Your task to perform on an android device: move a message to another label in the gmail app Image 0: 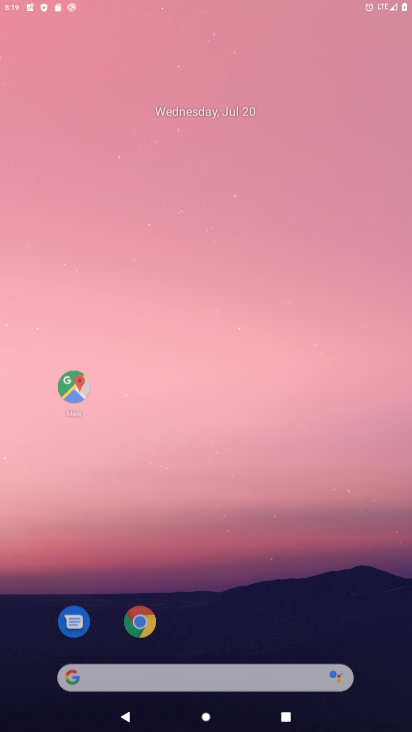
Step 0: click (132, 630)
Your task to perform on an android device: move a message to another label in the gmail app Image 1: 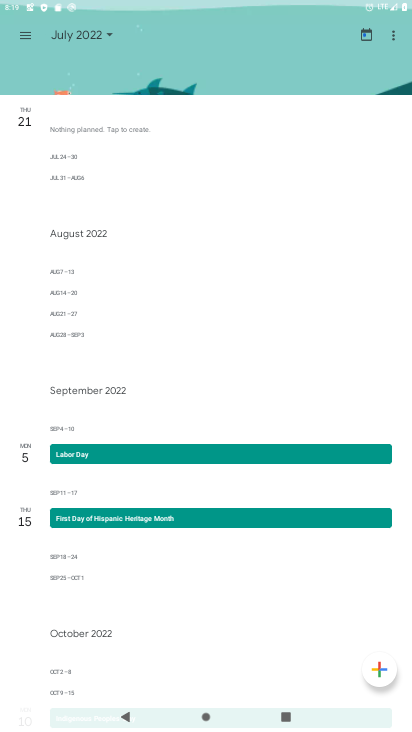
Step 1: press home button
Your task to perform on an android device: move a message to another label in the gmail app Image 2: 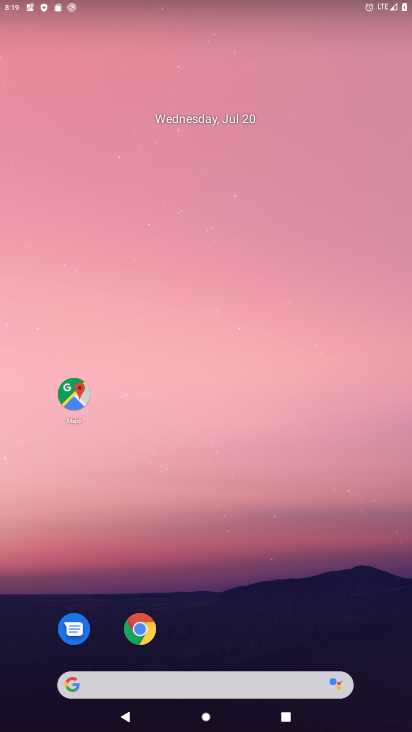
Step 2: drag from (142, 64) to (159, 14)
Your task to perform on an android device: move a message to another label in the gmail app Image 3: 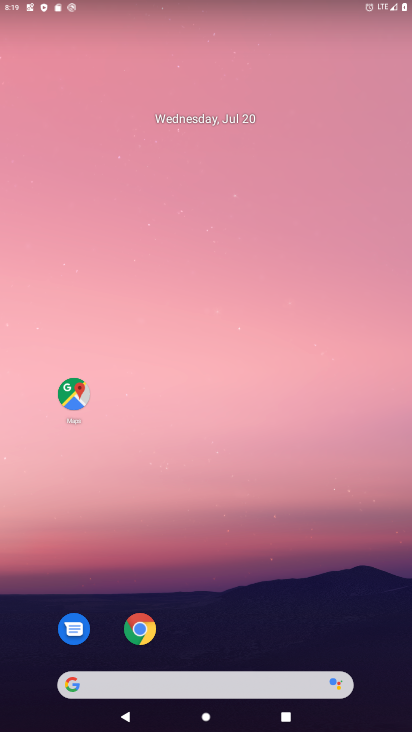
Step 3: drag from (199, 596) to (204, 78)
Your task to perform on an android device: move a message to another label in the gmail app Image 4: 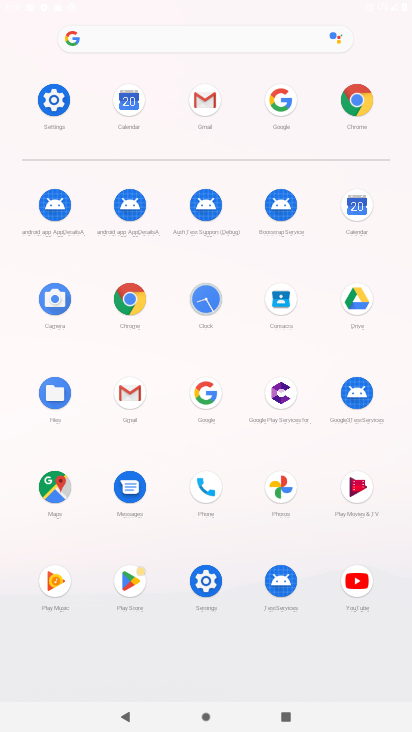
Step 4: click (200, 108)
Your task to perform on an android device: move a message to another label in the gmail app Image 5: 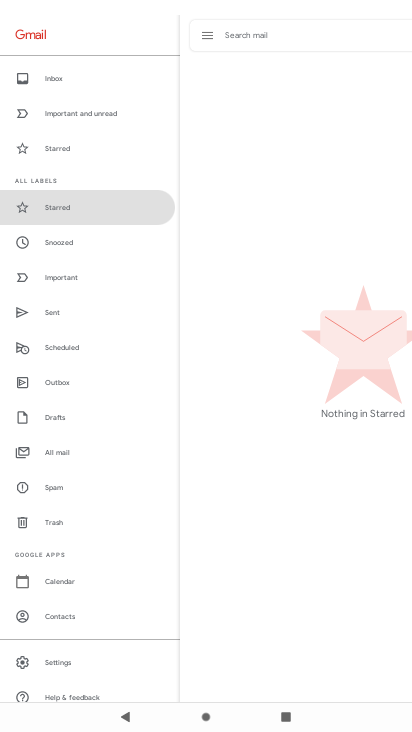
Step 5: click (62, 460)
Your task to perform on an android device: move a message to another label in the gmail app Image 6: 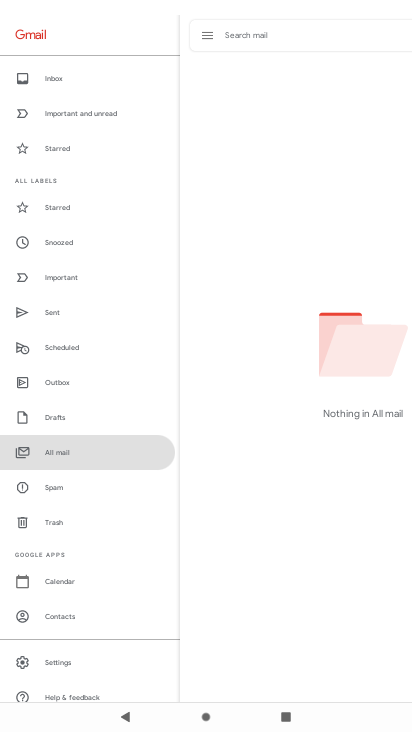
Step 6: task complete